Your task to perform on an android device: Check the news Image 0: 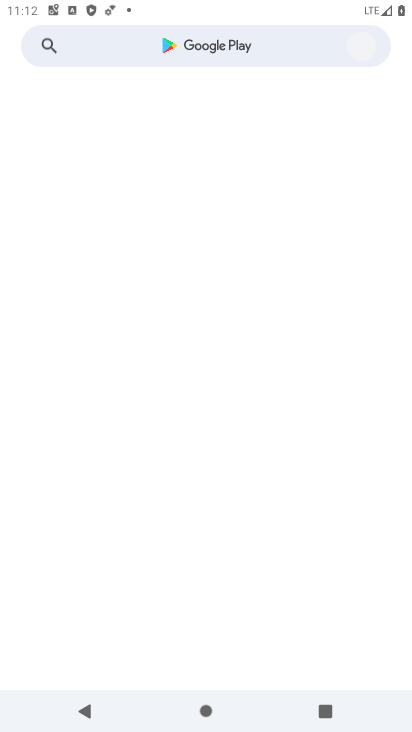
Step 0: press home button
Your task to perform on an android device: Check the news Image 1: 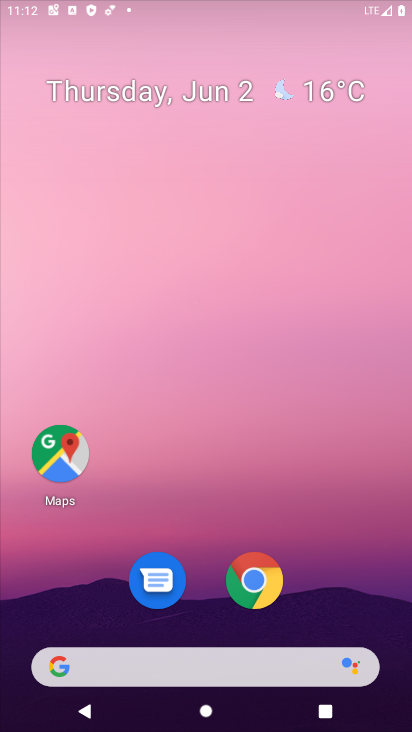
Step 1: click (252, 194)
Your task to perform on an android device: Check the news Image 2: 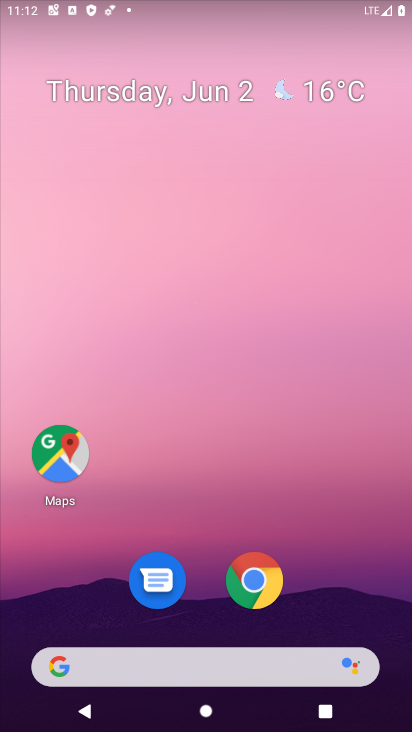
Step 2: drag from (279, 588) to (254, 187)
Your task to perform on an android device: Check the news Image 3: 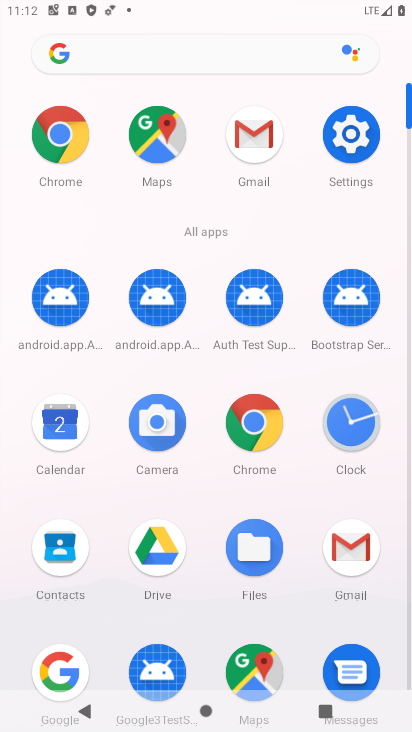
Step 3: click (51, 657)
Your task to perform on an android device: Check the news Image 4: 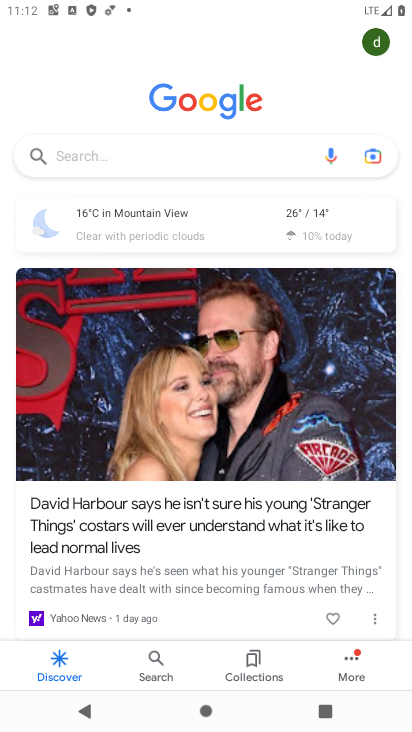
Step 4: click (195, 144)
Your task to perform on an android device: Check the news Image 5: 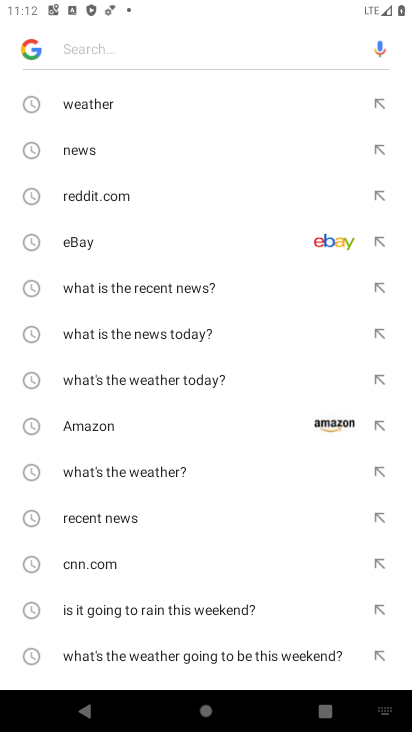
Step 5: click (129, 146)
Your task to perform on an android device: Check the news Image 6: 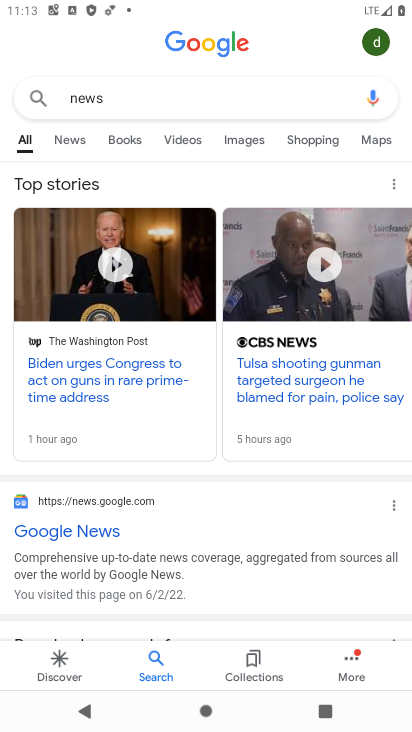
Step 6: task complete